Your task to perform on an android device: open app "Lyft - Rideshare, Bikes, Scooters & Transit" (install if not already installed) and go to login screen Image 0: 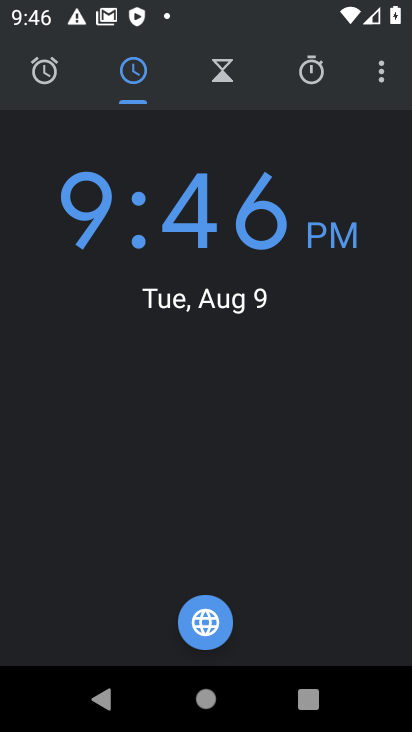
Step 0: press home button
Your task to perform on an android device: open app "Lyft - Rideshare, Bikes, Scooters & Transit" (install if not already installed) and go to login screen Image 1: 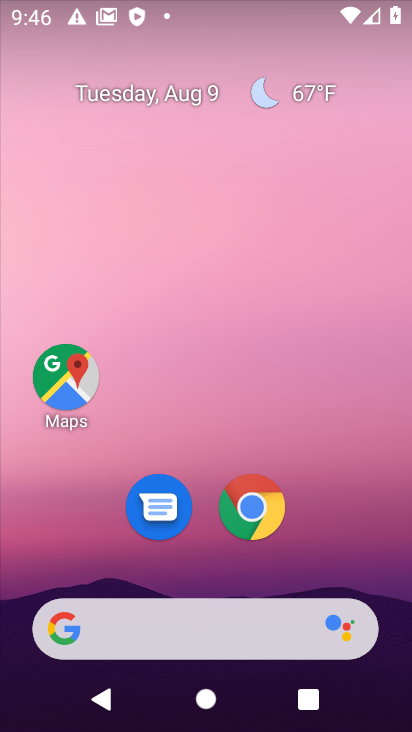
Step 1: drag from (203, 388) to (128, 42)
Your task to perform on an android device: open app "Lyft - Rideshare, Bikes, Scooters & Transit" (install if not already installed) and go to login screen Image 2: 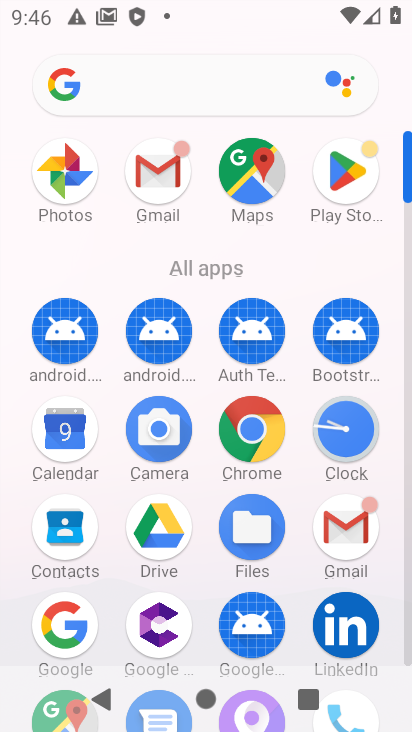
Step 2: click (366, 169)
Your task to perform on an android device: open app "Lyft - Rideshare, Bikes, Scooters & Transit" (install if not already installed) and go to login screen Image 3: 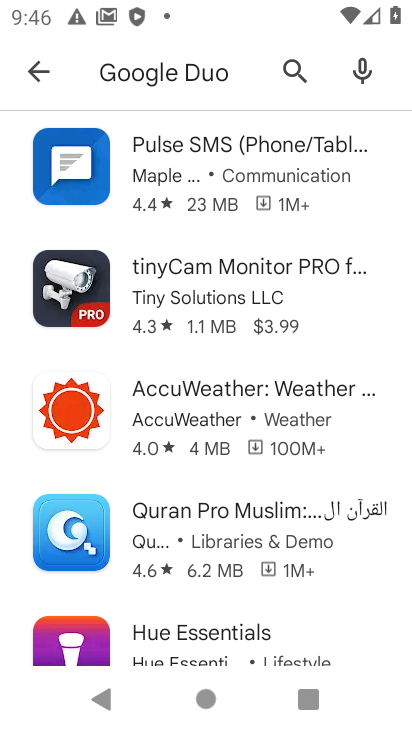
Step 3: click (35, 65)
Your task to perform on an android device: open app "Lyft - Rideshare, Bikes, Scooters & Transit" (install if not already installed) and go to login screen Image 4: 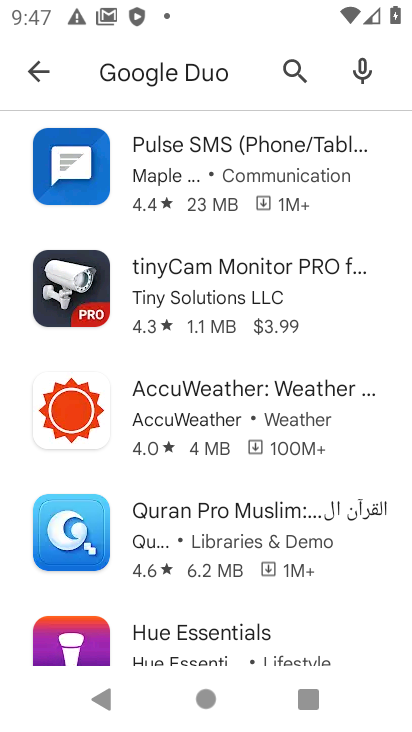
Step 4: click (44, 78)
Your task to perform on an android device: open app "Lyft - Rideshare, Bikes, Scooters & Transit" (install if not already installed) and go to login screen Image 5: 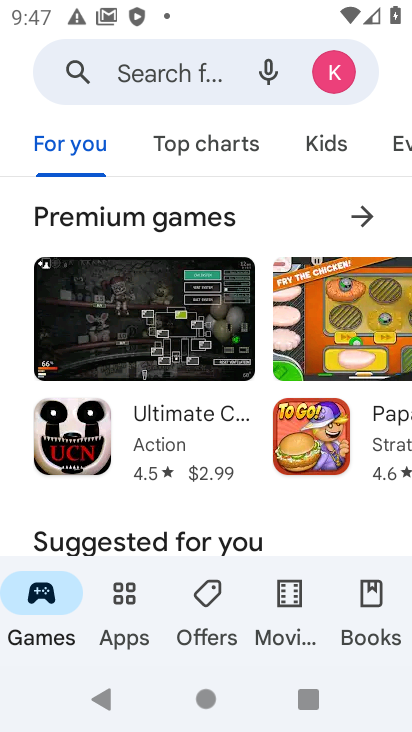
Step 5: click (155, 53)
Your task to perform on an android device: open app "Lyft - Rideshare, Bikes, Scooters & Transit" (install if not already installed) and go to login screen Image 6: 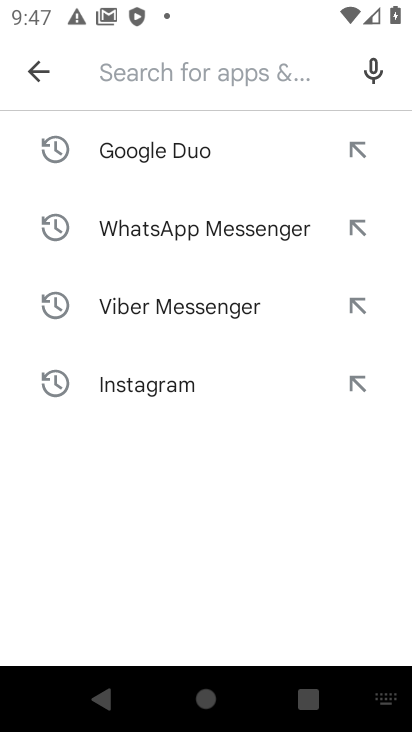
Step 6: type "Rideshare, Bikes, Scooters & Transit"
Your task to perform on an android device: open app "Lyft - Rideshare, Bikes, Scooters & Transit" (install if not already installed) and go to login screen Image 7: 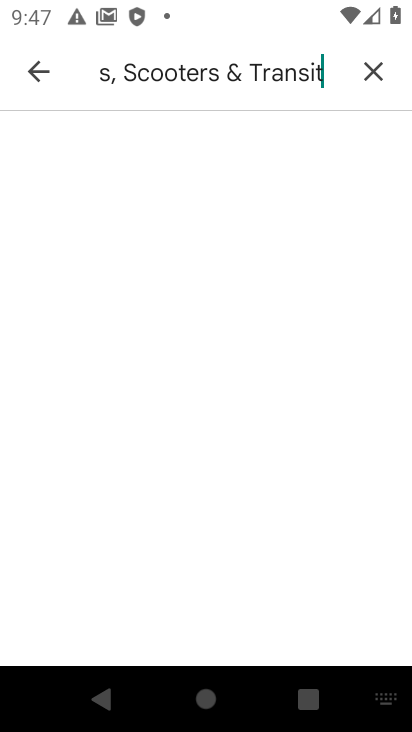
Step 7: press enter
Your task to perform on an android device: open app "Lyft - Rideshare, Bikes, Scooters & Transit" (install if not already installed) and go to login screen Image 8: 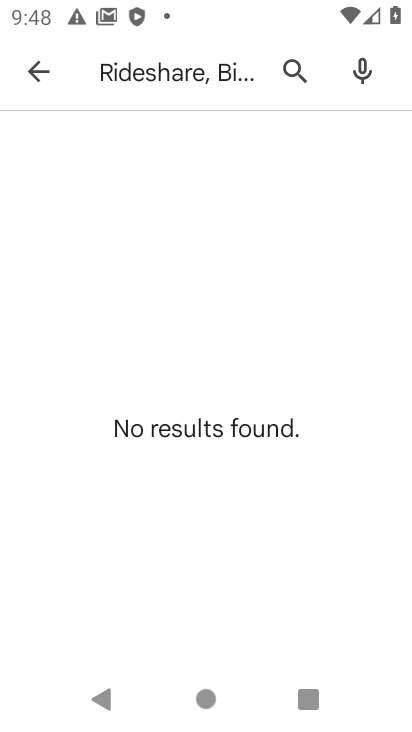
Step 8: task complete